Your task to perform on an android device: turn smart compose on in the gmail app Image 0: 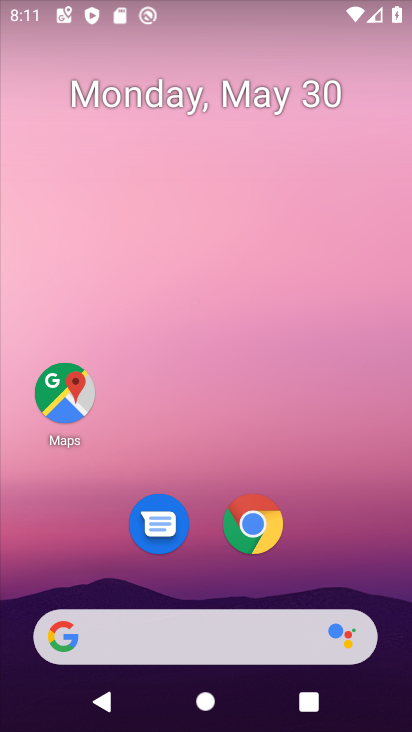
Step 0: drag from (308, 552) to (216, 0)
Your task to perform on an android device: turn smart compose on in the gmail app Image 1: 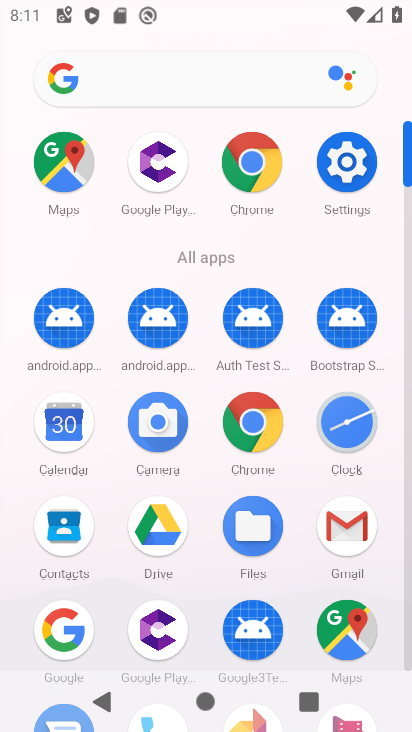
Step 1: click (349, 513)
Your task to perform on an android device: turn smart compose on in the gmail app Image 2: 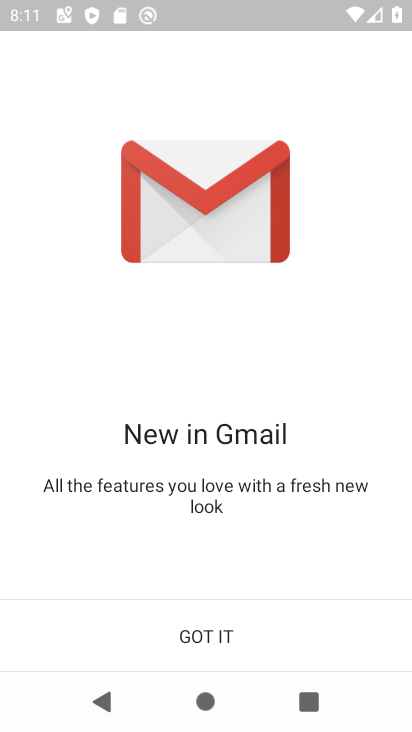
Step 2: click (262, 624)
Your task to perform on an android device: turn smart compose on in the gmail app Image 3: 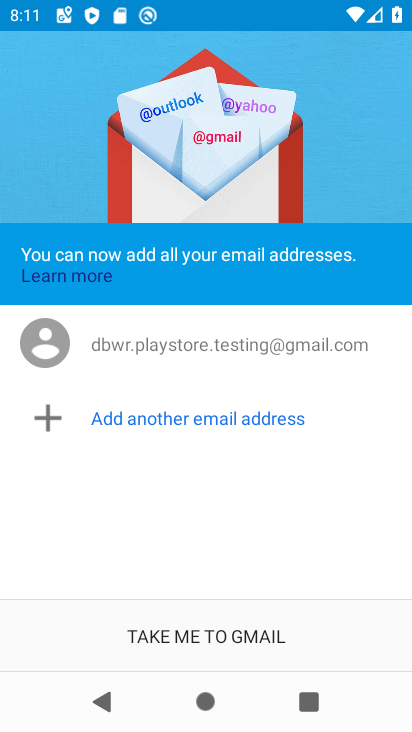
Step 3: click (275, 625)
Your task to perform on an android device: turn smart compose on in the gmail app Image 4: 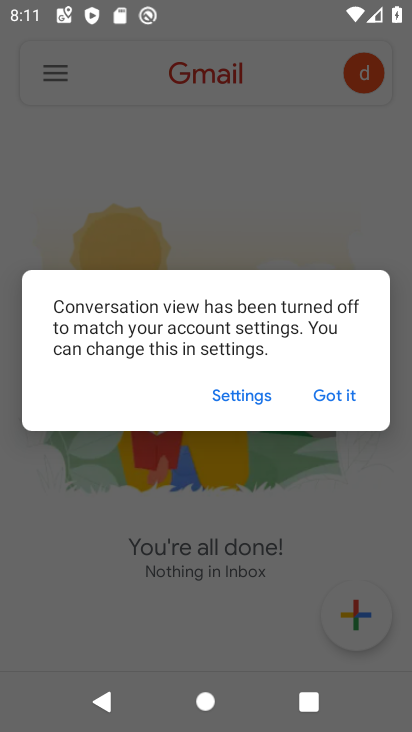
Step 4: click (324, 383)
Your task to perform on an android device: turn smart compose on in the gmail app Image 5: 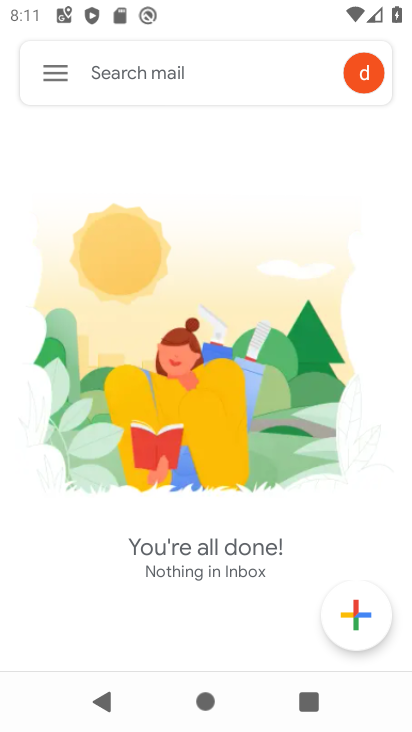
Step 5: click (51, 81)
Your task to perform on an android device: turn smart compose on in the gmail app Image 6: 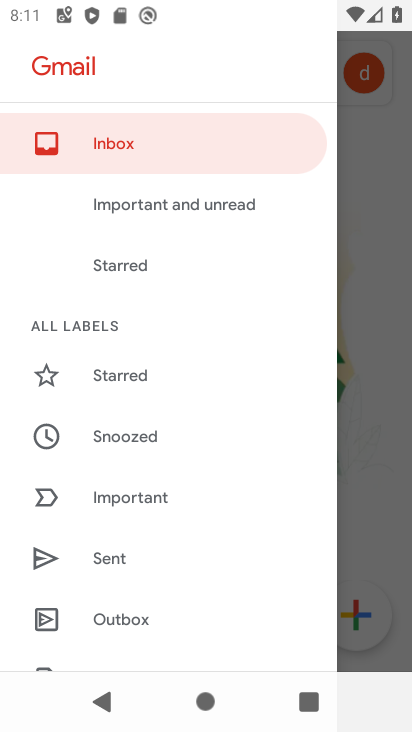
Step 6: drag from (191, 545) to (195, 0)
Your task to perform on an android device: turn smart compose on in the gmail app Image 7: 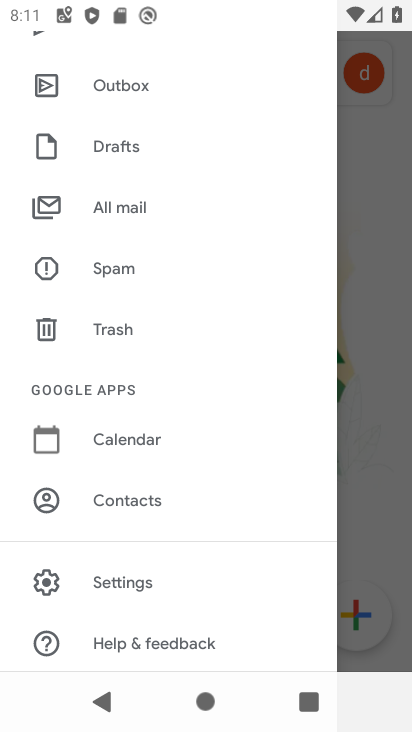
Step 7: click (165, 578)
Your task to perform on an android device: turn smart compose on in the gmail app Image 8: 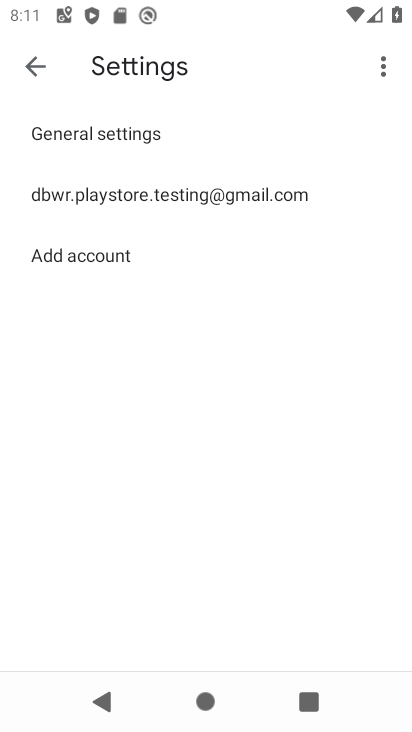
Step 8: click (222, 184)
Your task to perform on an android device: turn smart compose on in the gmail app Image 9: 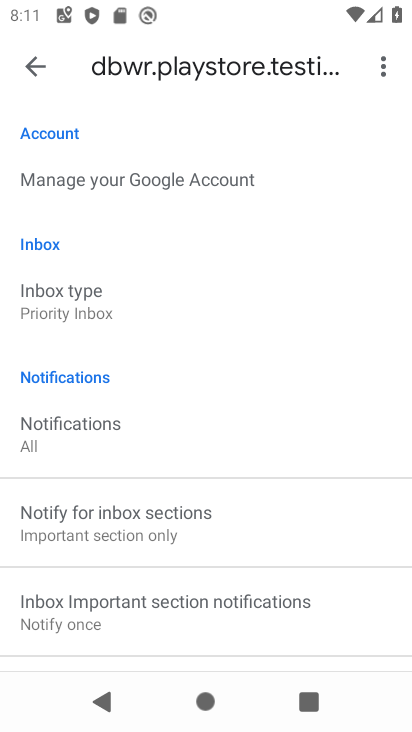
Step 9: task complete